Your task to perform on an android device: Open Chrome and go to settings Image 0: 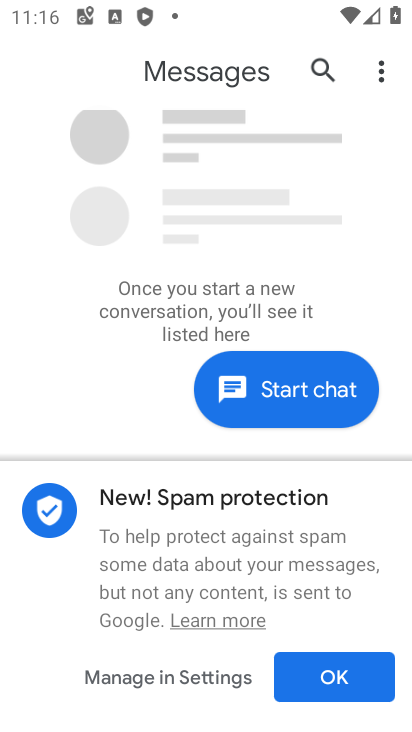
Step 0: press home button
Your task to perform on an android device: Open Chrome and go to settings Image 1: 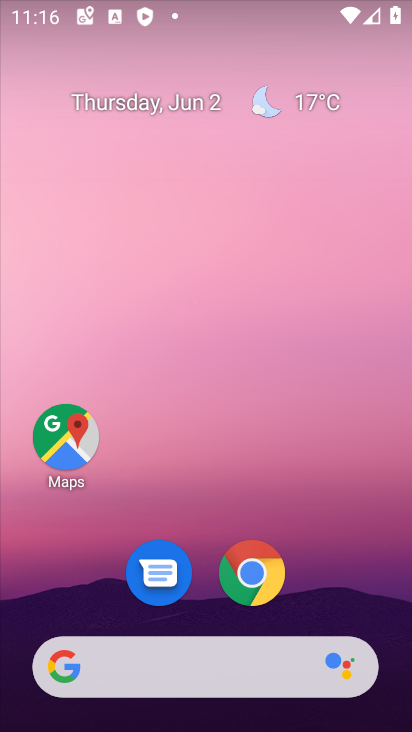
Step 1: drag from (341, 533) to (377, 50)
Your task to perform on an android device: Open Chrome and go to settings Image 2: 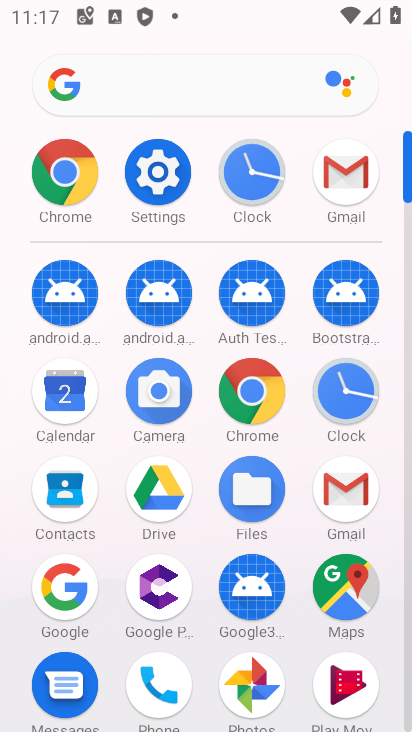
Step 2: click (76, 175)
Your task to perform on an android device: Open Chrome and go to settings Image 3: 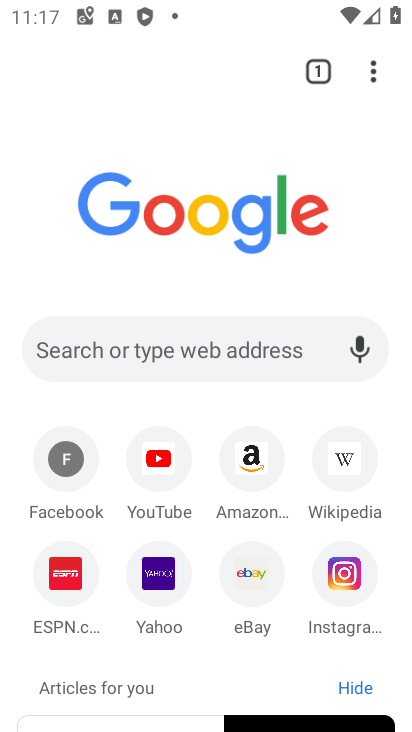
Step 3: task complete